Your task to perform on an android device: Find coffee shops on Maps Image 0: 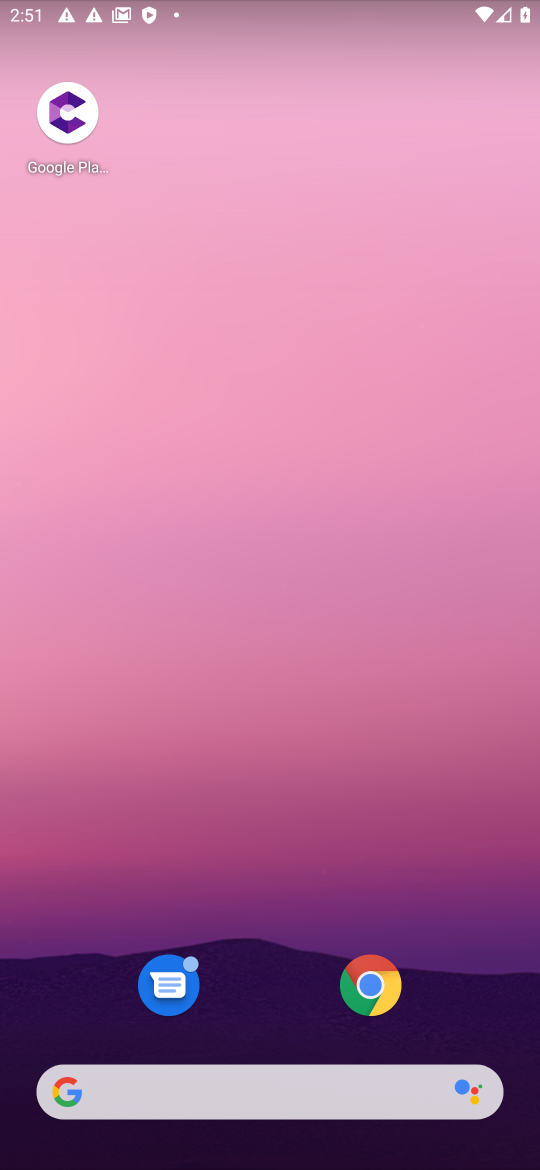
Step 0: drag from (378, 946) to (341, 24)
Your task to perform on an android device: Find coffee shops on Maps Image 1: 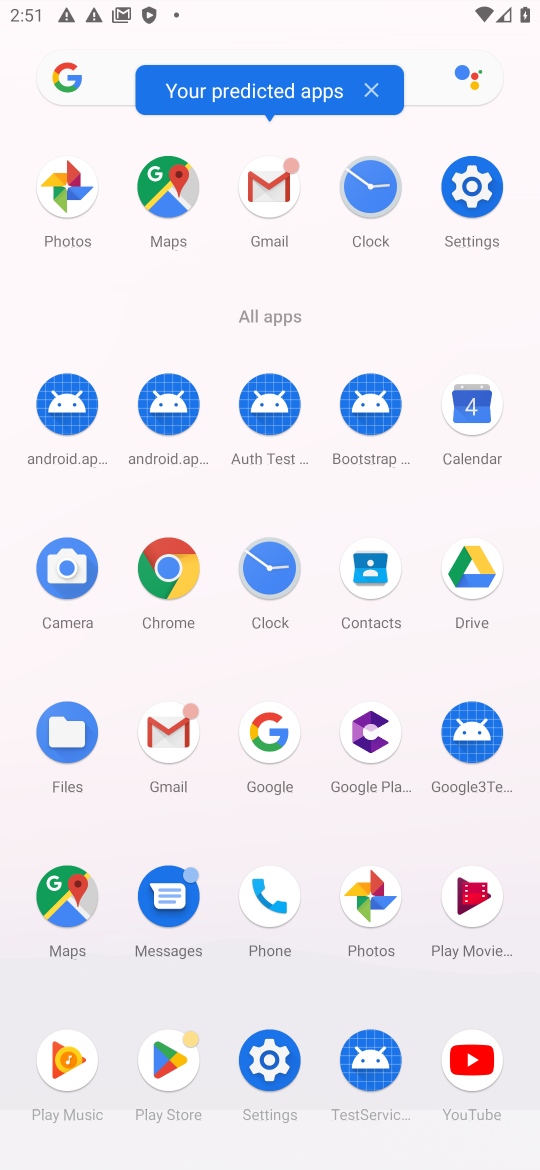
Step 1: click (148, 190)
Your task to perform on an android device: Find coffee shops on Maps Image 2: 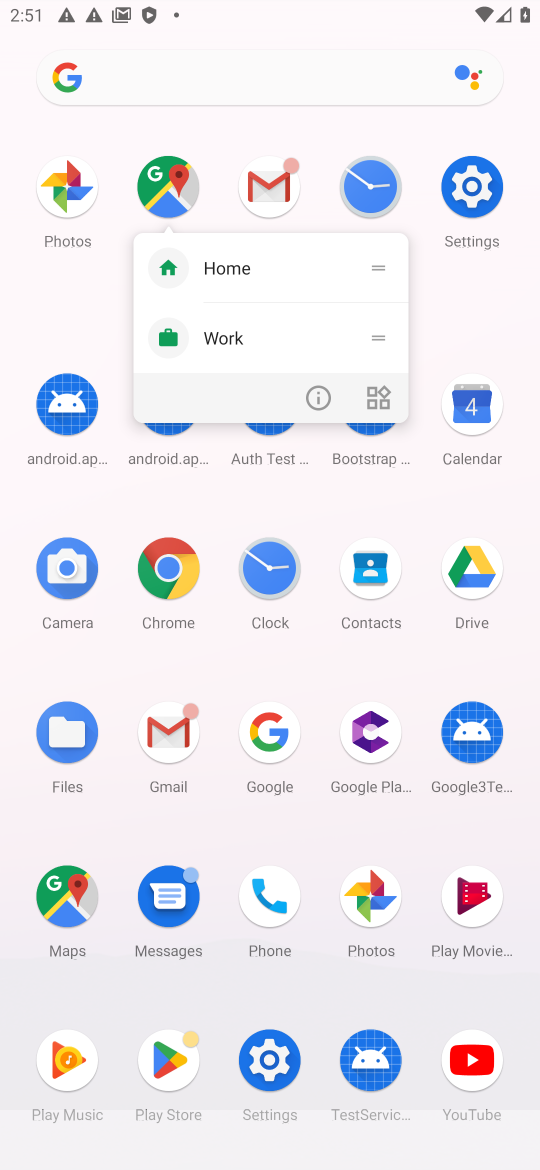
Step 2: click (164, 194)
Your task to perform on an android device: Find coffee shops on Maps Image 3: 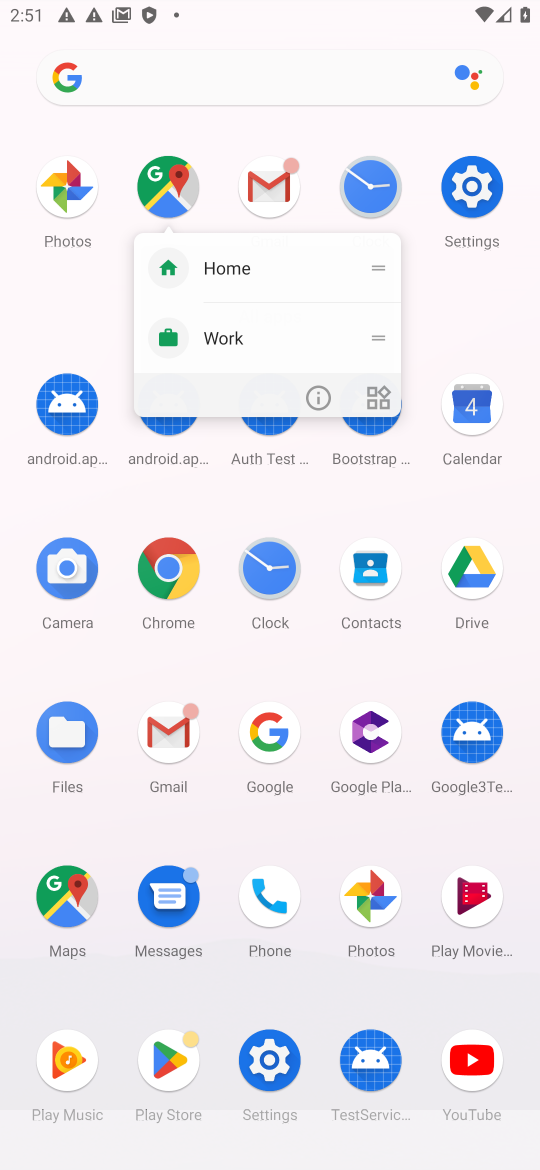
Step 3: click (166, 198)
Your task to perform on an android device: Find coffee shops on Maps Image 4: 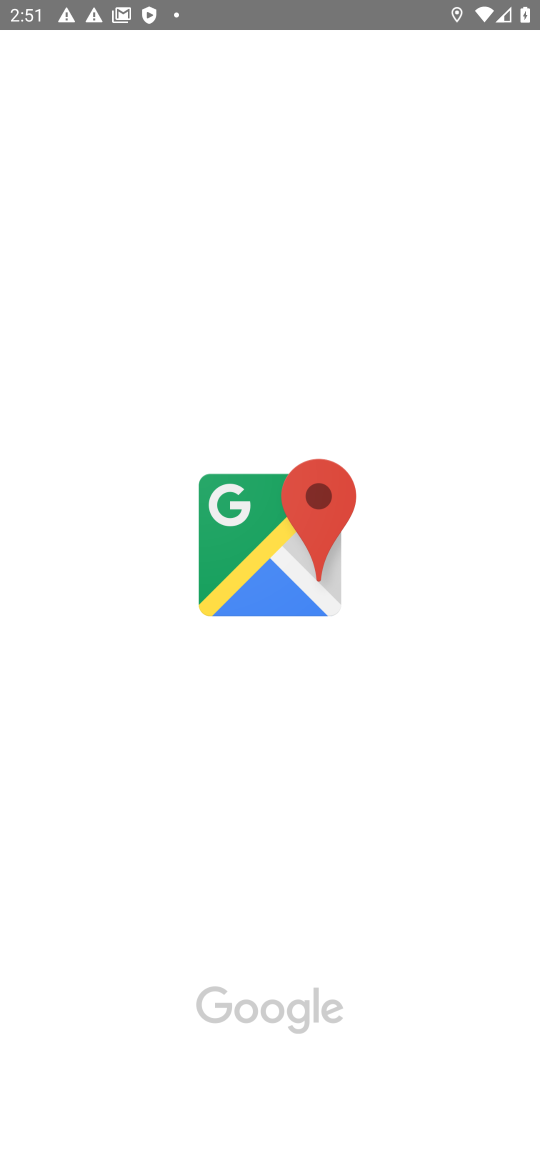
Step 4: click (277, 552)
Your task to perform on an android device: Find coffee shops on Maps Image 5: 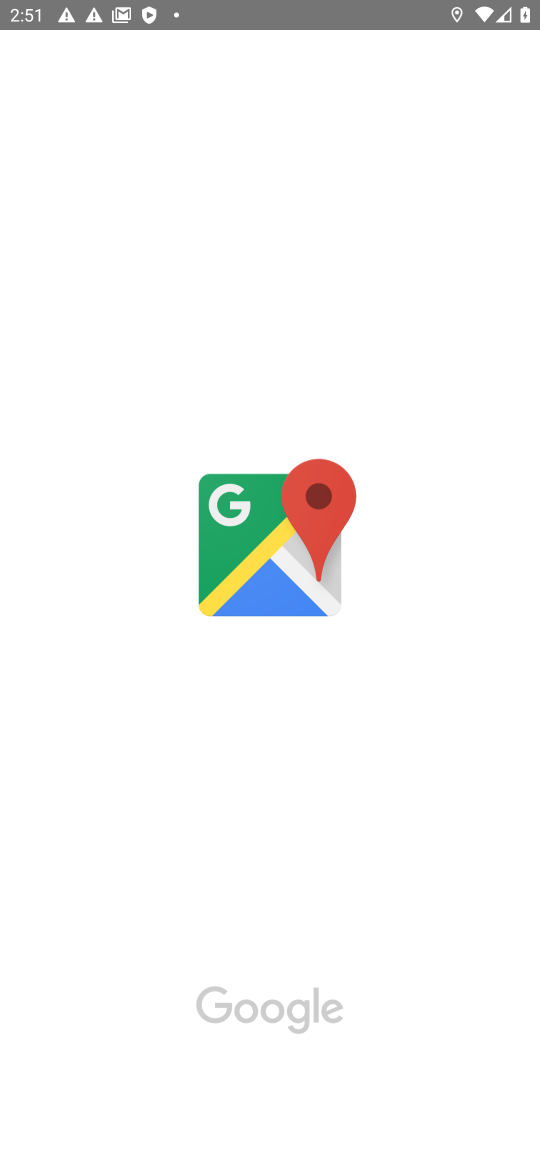
Step 5: click (283, 545)
Your task to perform on an android device: Find coffee shops on Maps Image 6: 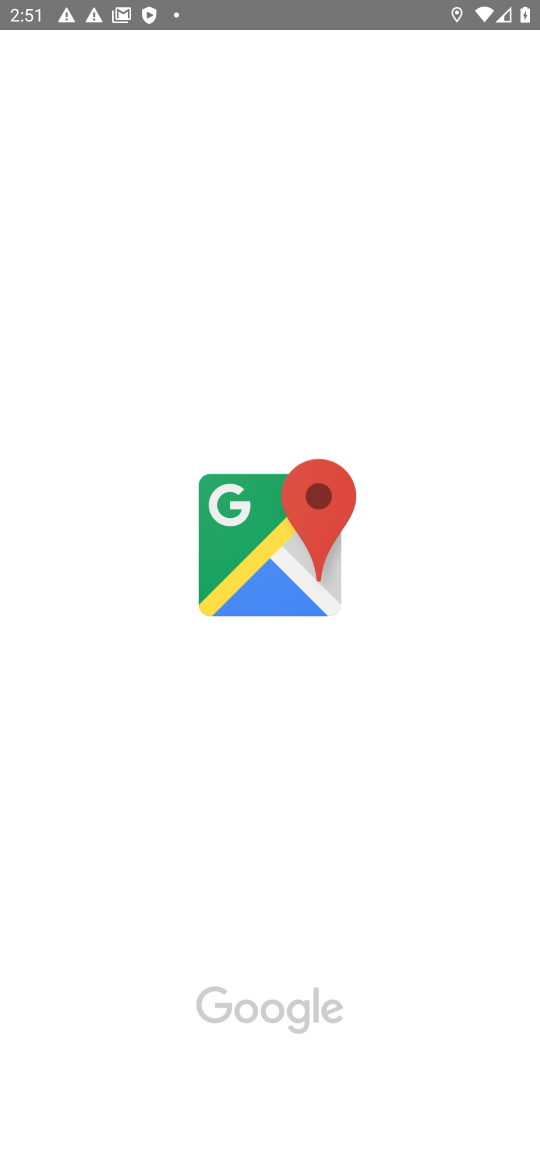
Step 6: click (288, 581)
Your task to perform on an android device: Find coffee shops on Maps Image 7: 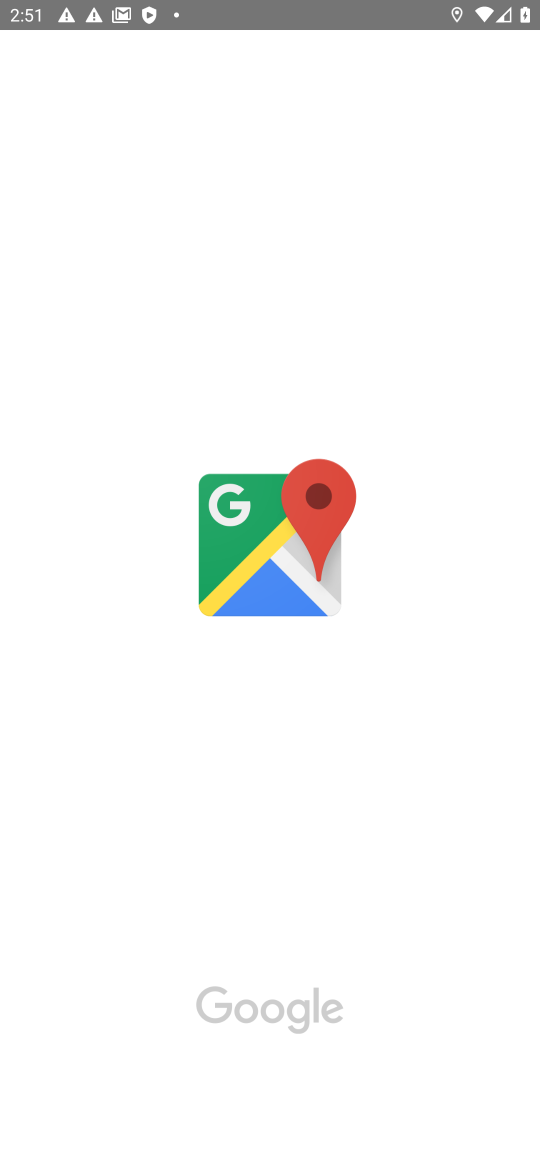
Step 7: click (290, 565)
Your task to perform on an android device: Find coffee shops on Maps Image 8: 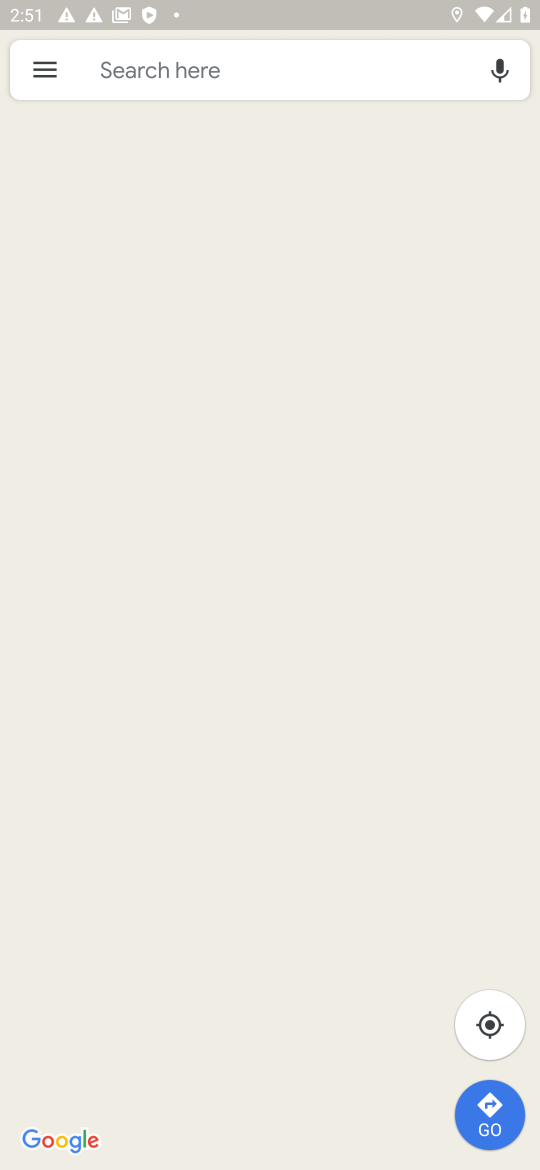
Step 8: click (163, 16)
Your task to perform on an android device: Find coffee shops on Maps Image 9: 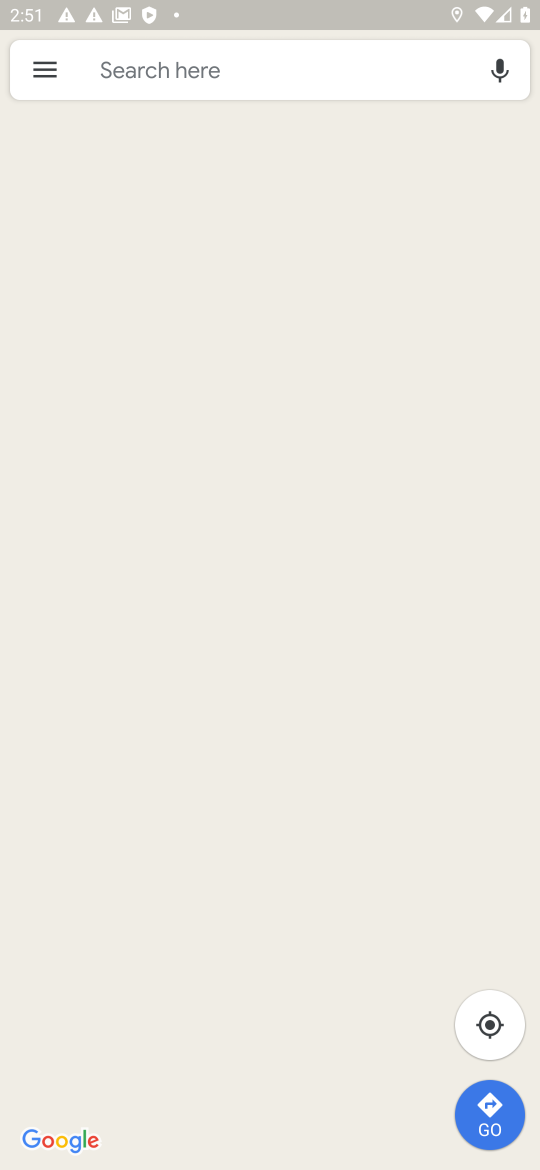
Step 9: click (159, 68)
Your task to perform on an android device: Find coffee shops on Maps Image 10: 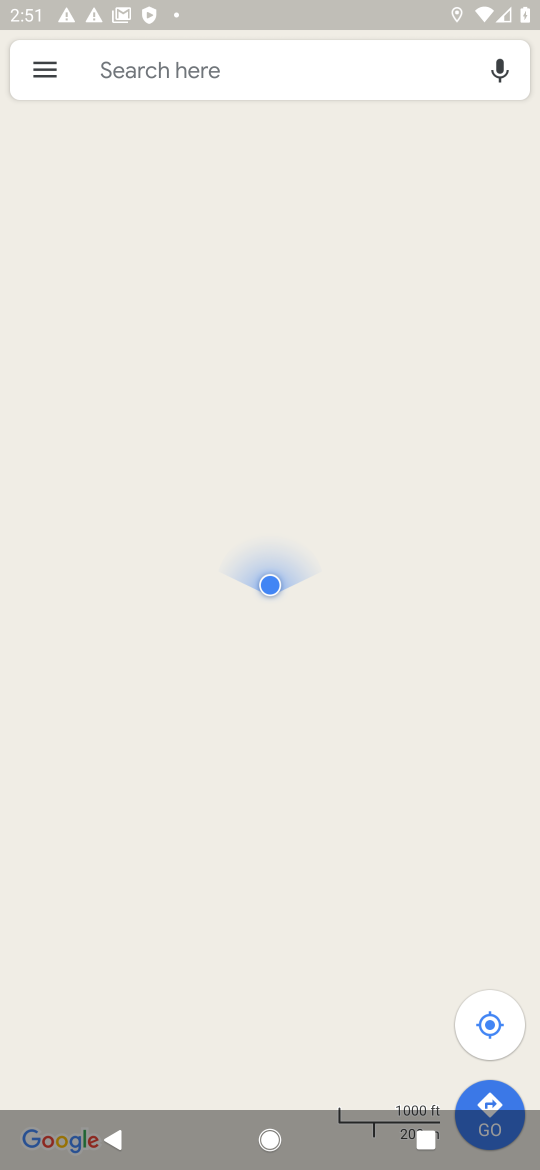
Step 10: click (153, 91)
Your task to perform on an android device: Find coffee shops on Maps Image 11: 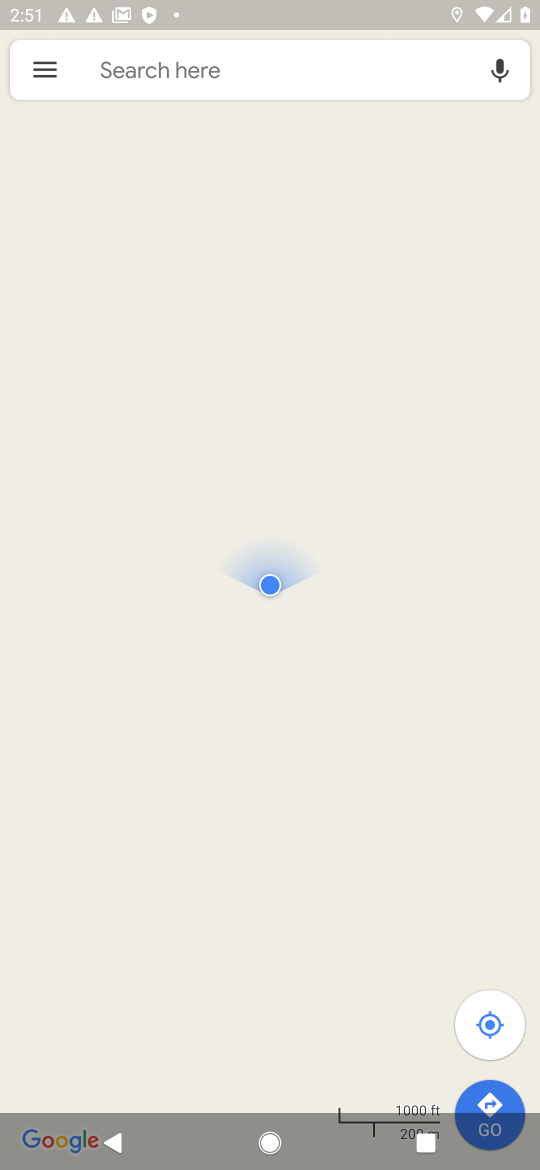
Step 11: click (159, 57)
Your task to perform on an android device: Find coffee shops on Maps Image 12: 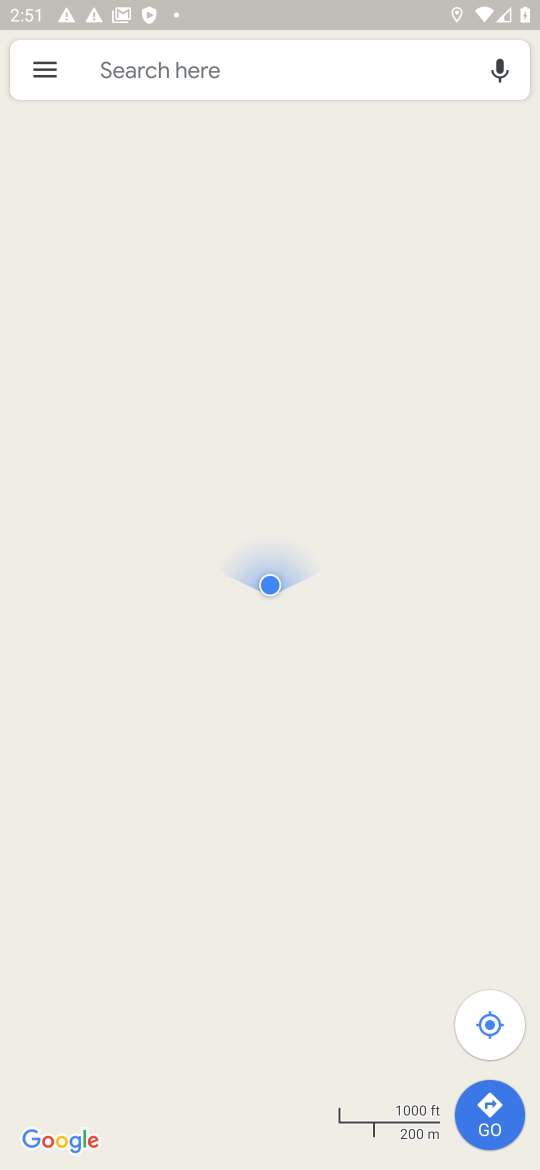
Step 12: click (169, 67)
Your task to perform on an android device: Find coffee shops on Maps Image 13: 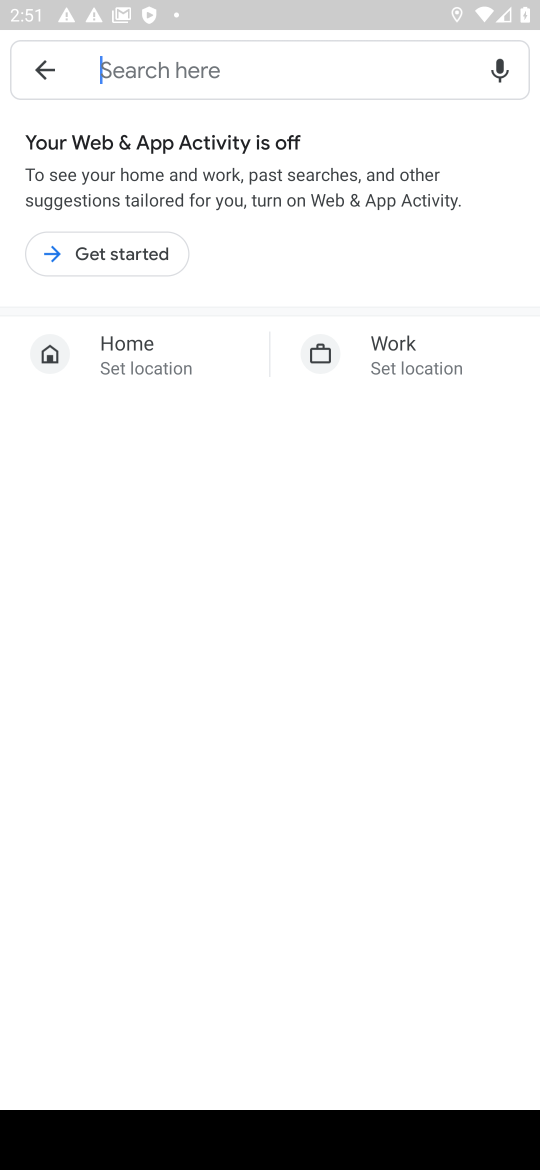
Step 13: type "coffee"
Your task to perform on an android device: Find coffee shops on Maps Image 14: 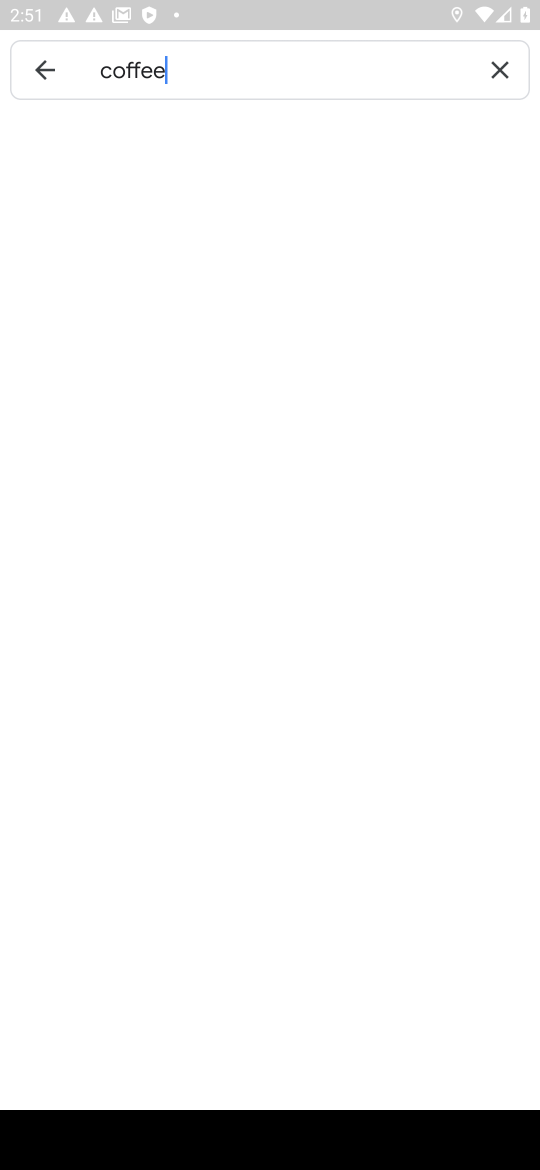
Step 14: click (188, 83)
Your task to perform on an android device: Find coffee shops on Maps Image 15: 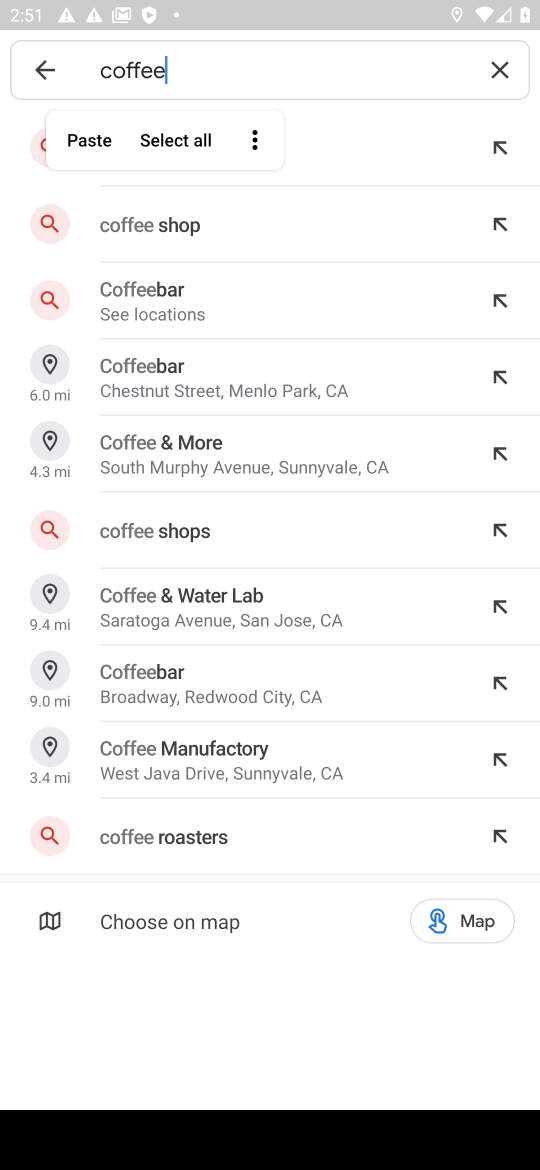
Step 15: click (31, 76)
Your task to perform on an android device: Find coffee shops on Maps Image 16: 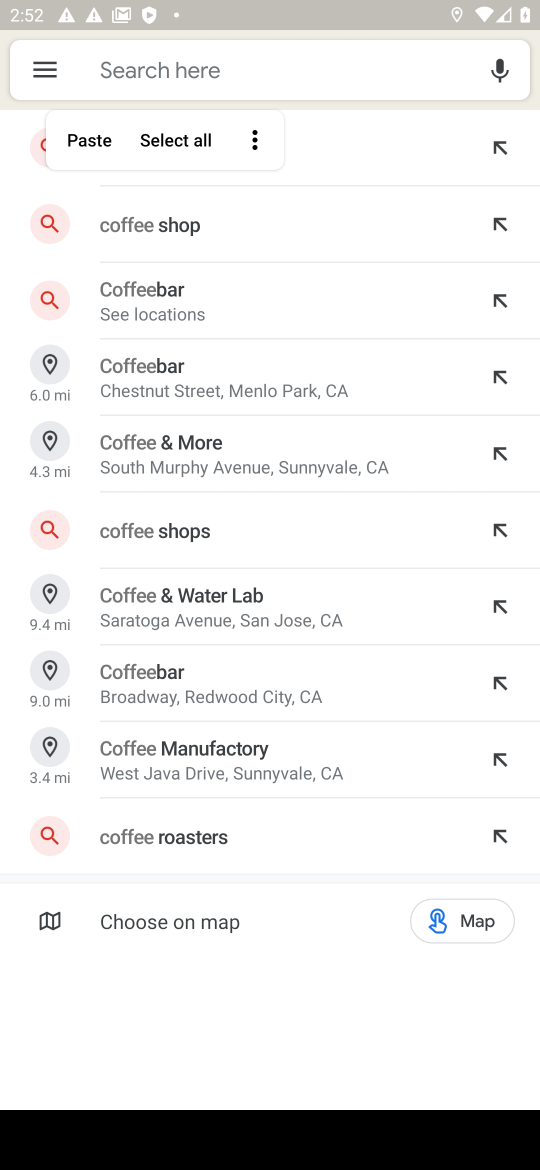
Step 16: press back button
Your task to perform on an android device: Find coffee shops on Maps Image 17: 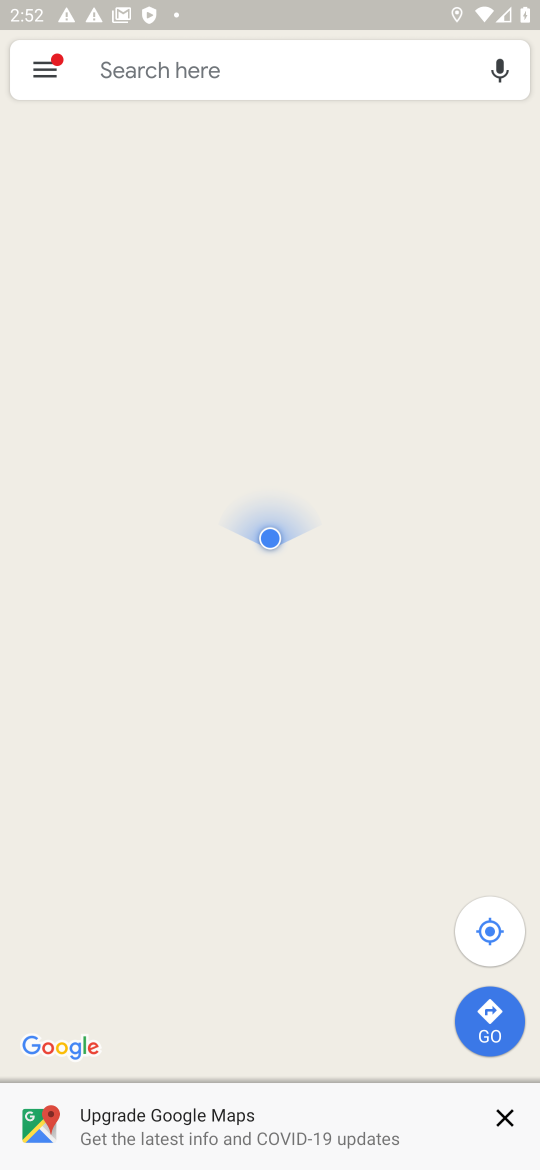
Step 17: click (365, 938)
Your task to perform on an android device: Find coffee shops on Maps Image 18: 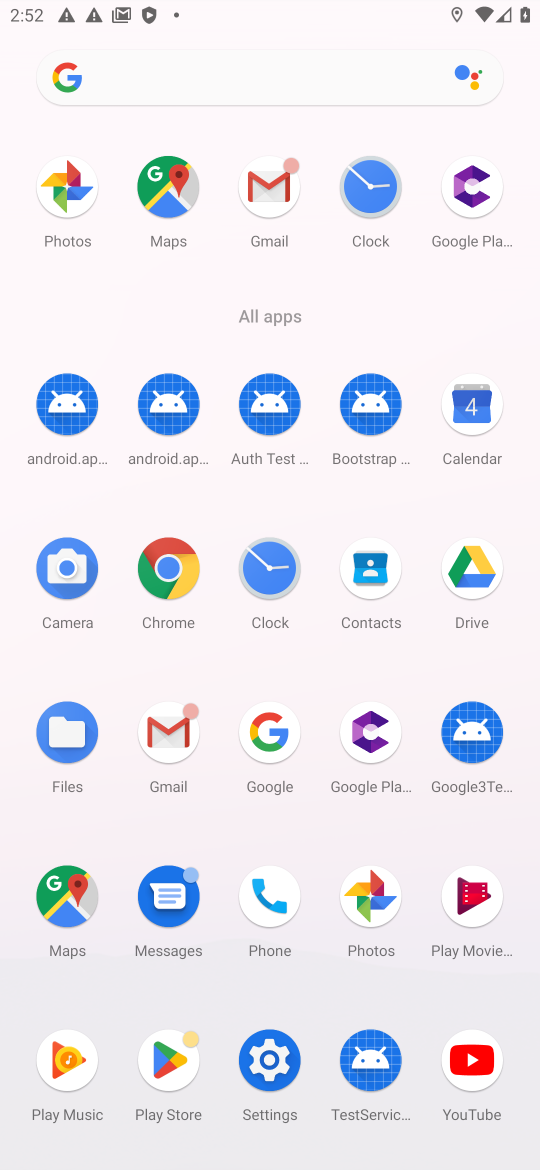
Step 18: click (109, 91)
Your task to perform on an android device: Find coffee shops on Maps Image 19: 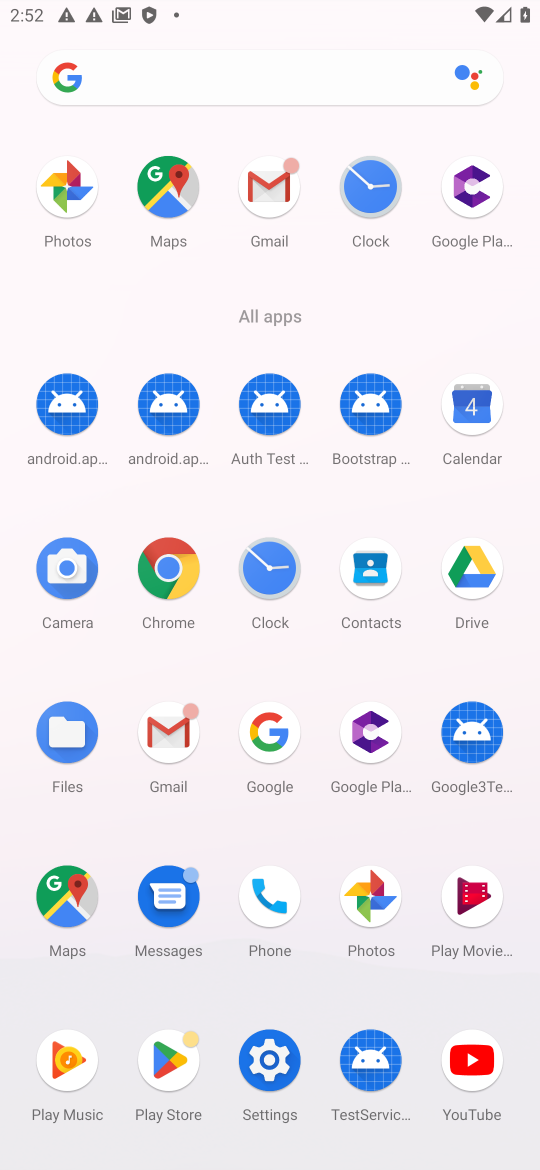
Step 19: click (163, 191)
Your task to perform on an android device: Find coffee shops on Maps Image 20: 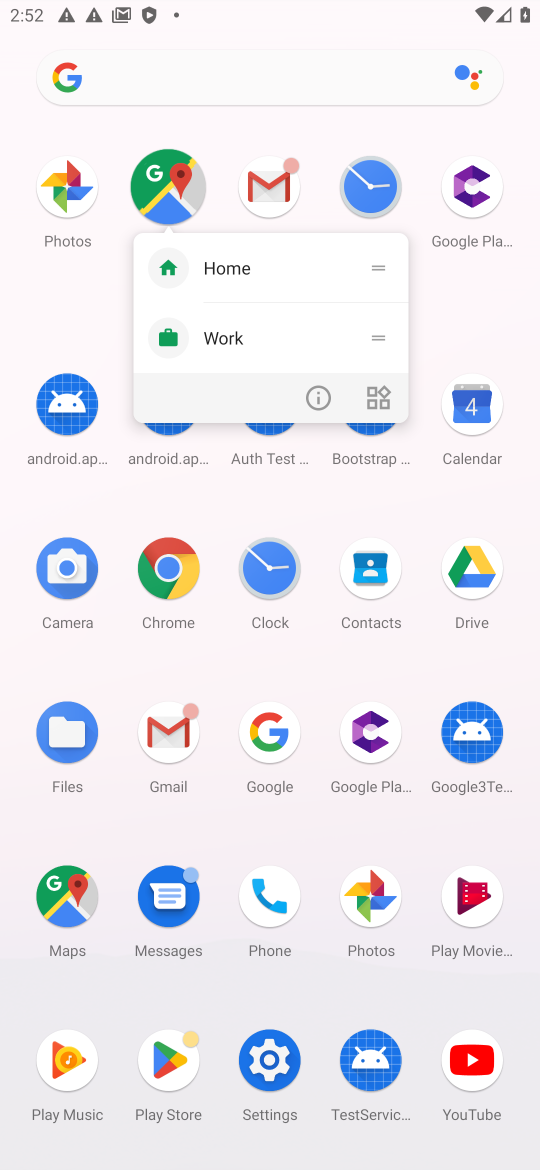
Step 20: click (166, 189)
Your task to perform on an android device: Find coffee shops on Maps Image 21: 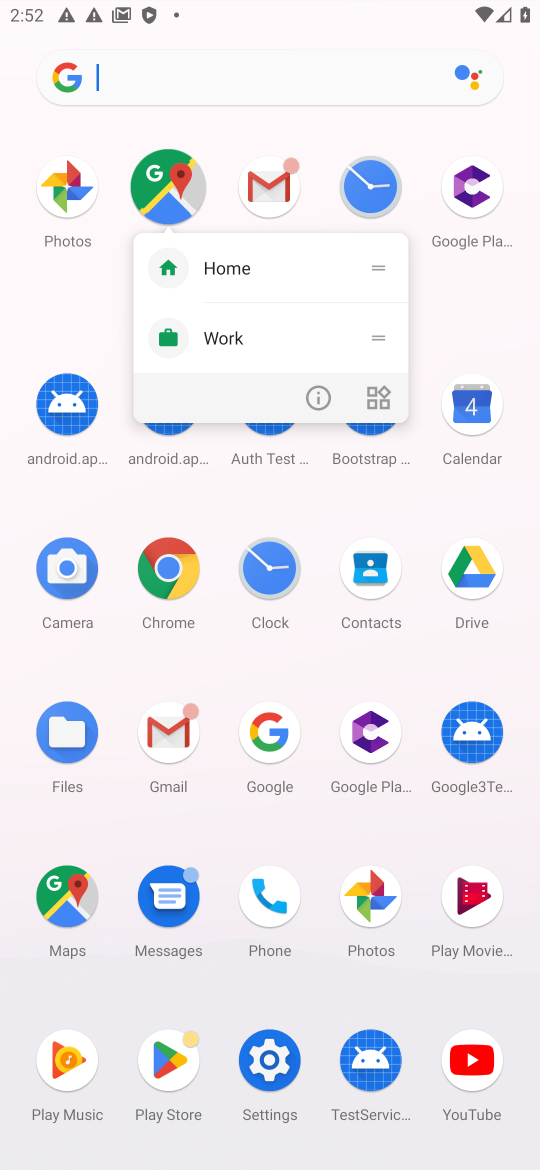
Step 21: click (166, 189)
Your task to perform on an android device: Find coffee shops on Maps Image 22: 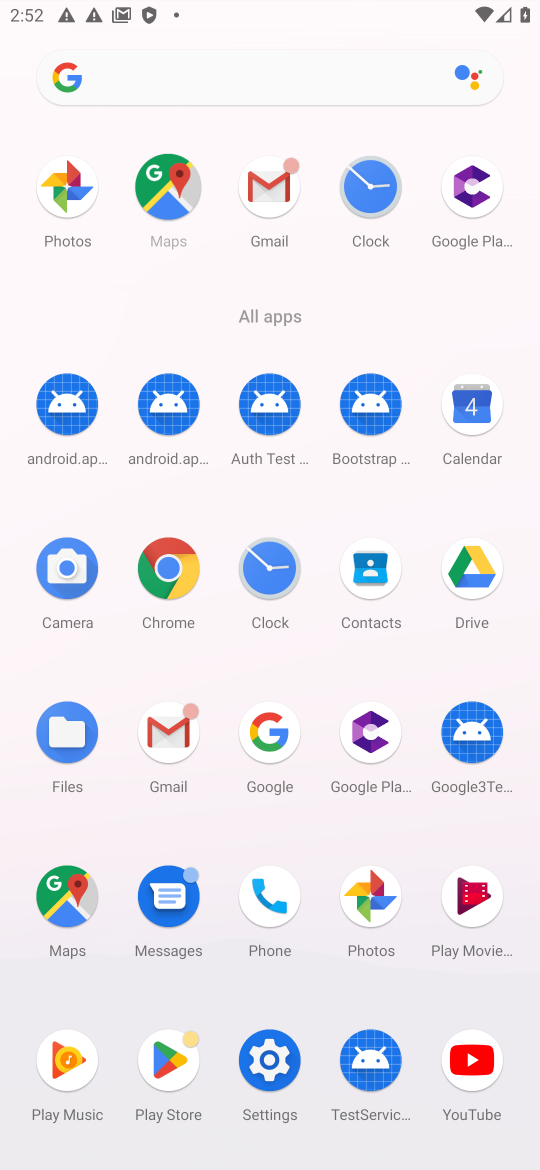
Step 22: click (168, 189)
Your task to perform on an android device: Find coffee shops on Maps Image 23: 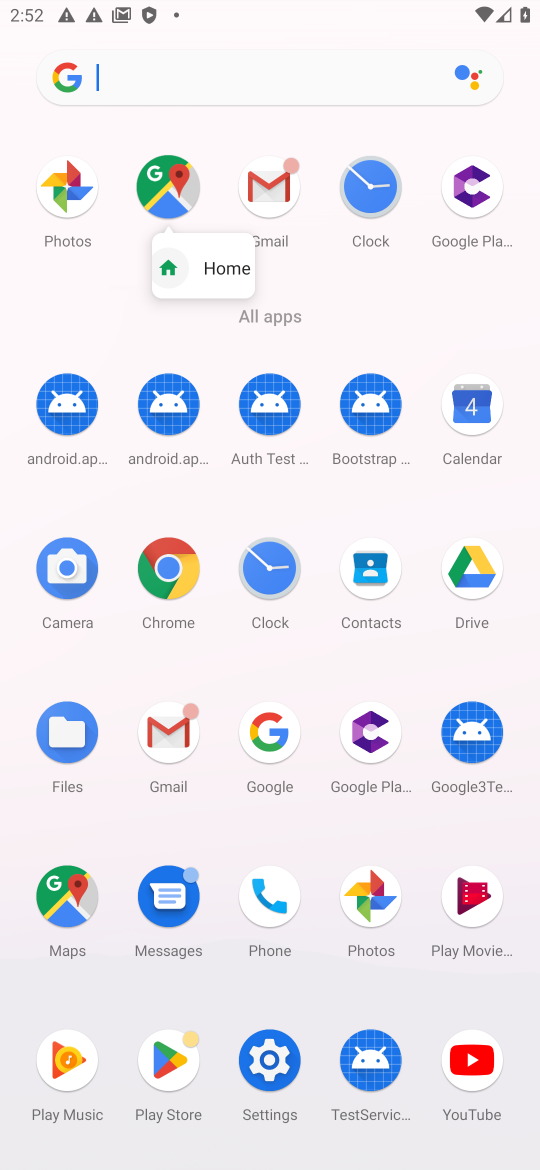
Step 23: click (232, 332)
Your task to perform on an android device: Find coffee shops on Maps Image 24: 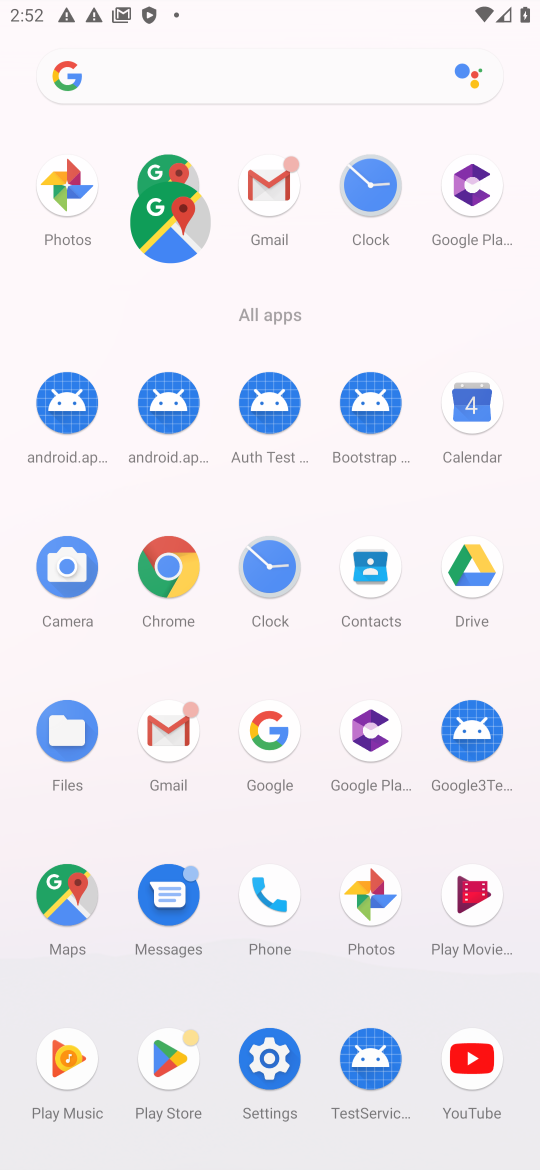
Step 24: click (159, 163)
Your task to perform on an android device: Find coffee shops on Maps Image 25: 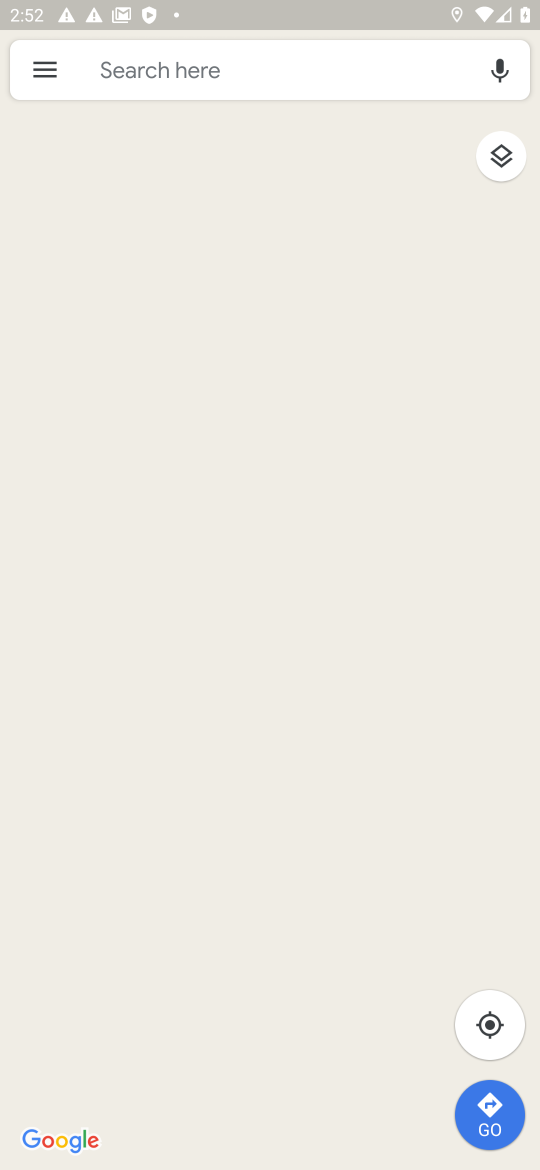
Step 25: click (113, 59)
Your task to perform on an android device: Find coffee shops on Maps Image 26: 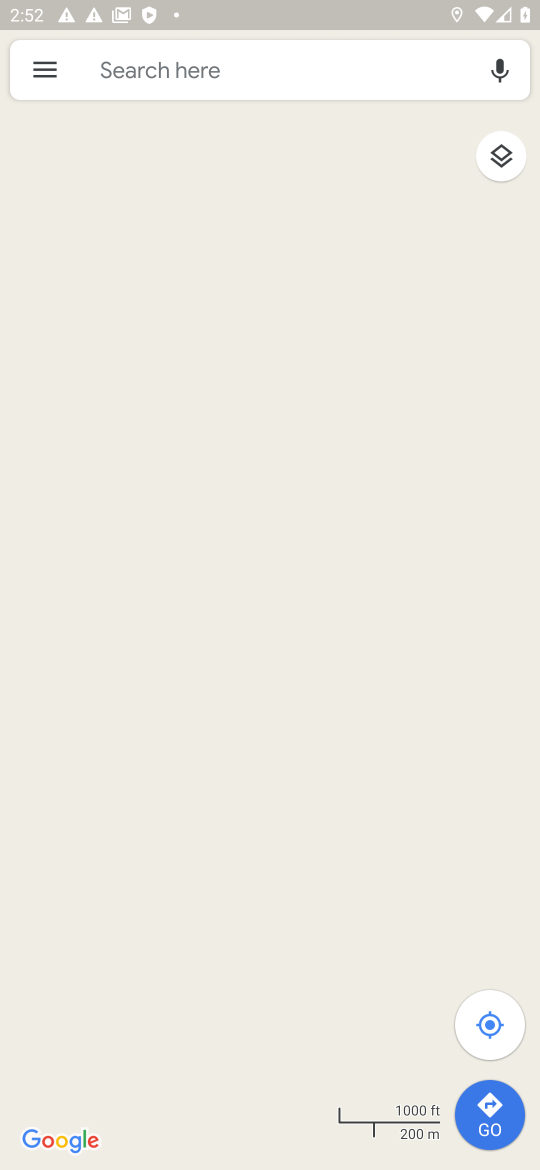
Step 26: click (119, 52)
Your task to perform on an android device: Find coffee shops on Maps Image 27: 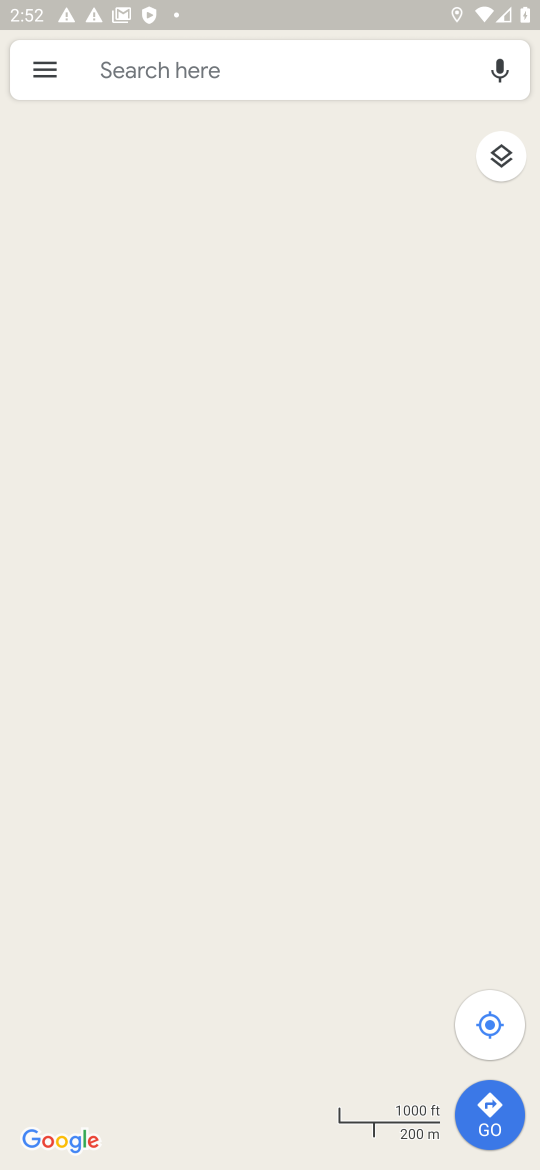
Step 27: click (119, 52)
Your task to perform on an android device: Find coffee shops on Maps Image 28: 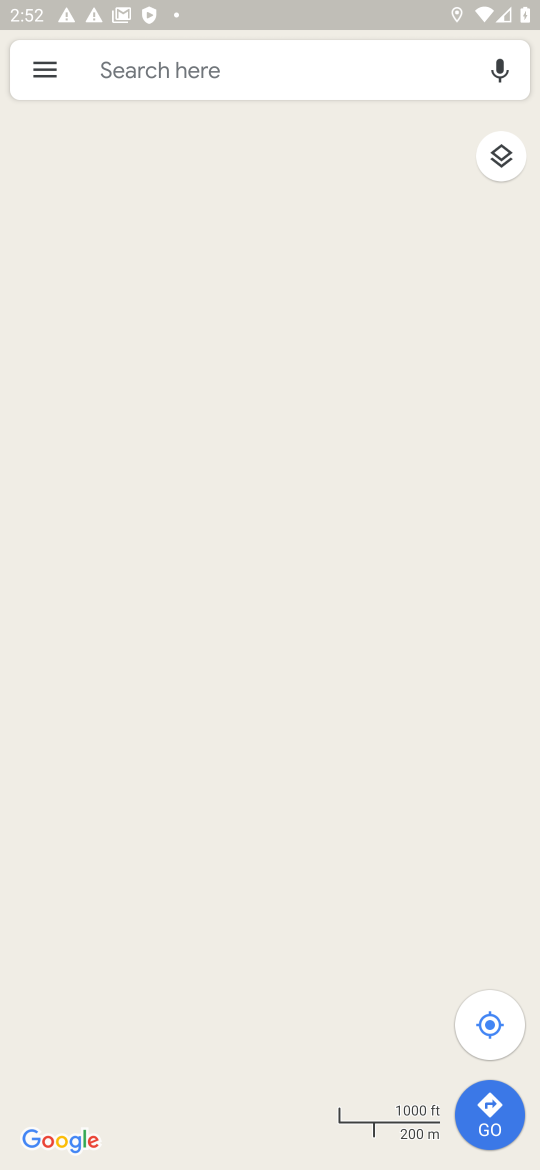
Step 28: click (119, 52)
Your task to perform on an android device: Find coffee shops on Maps Image 29: 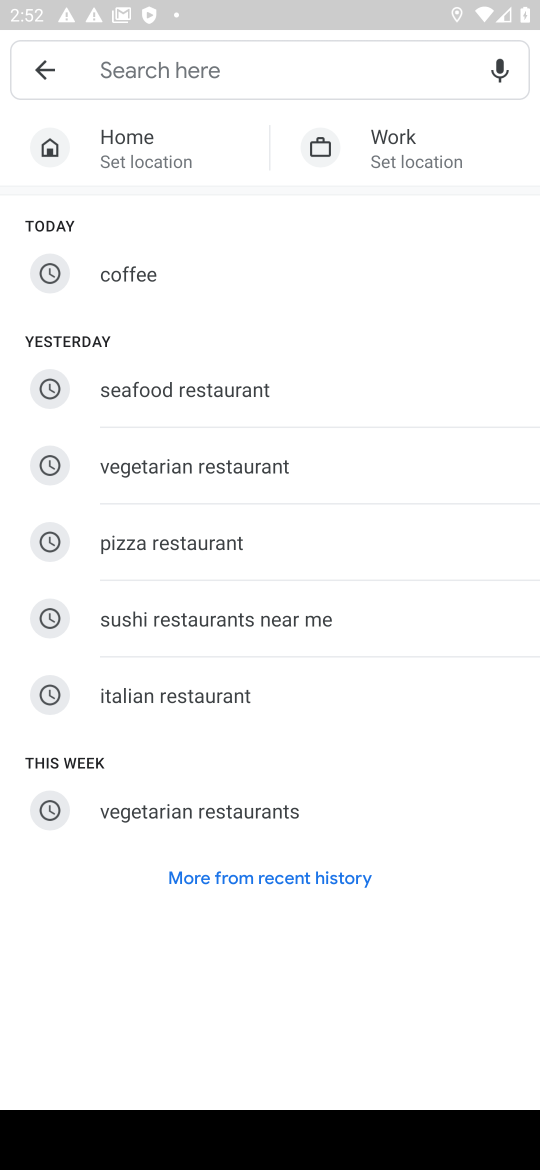
Step 29: click (149, 251)
Your task to perform on an android device: Find coffee shops on Maps Image 30: 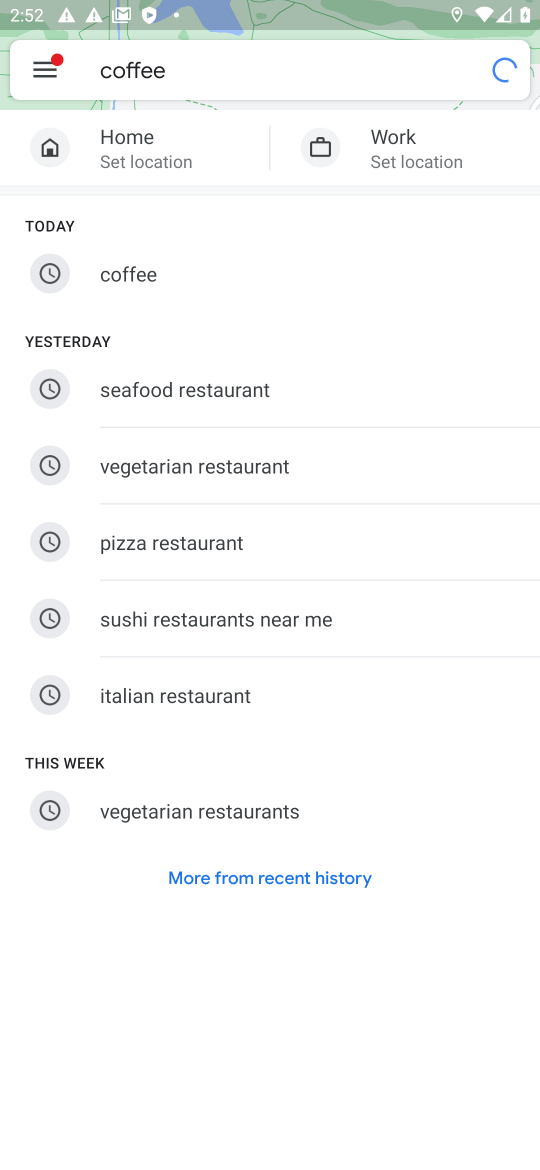
Step 30: click (136, 266)
Your task to perform on an android device: Find coffee shops on Maps Image 31: 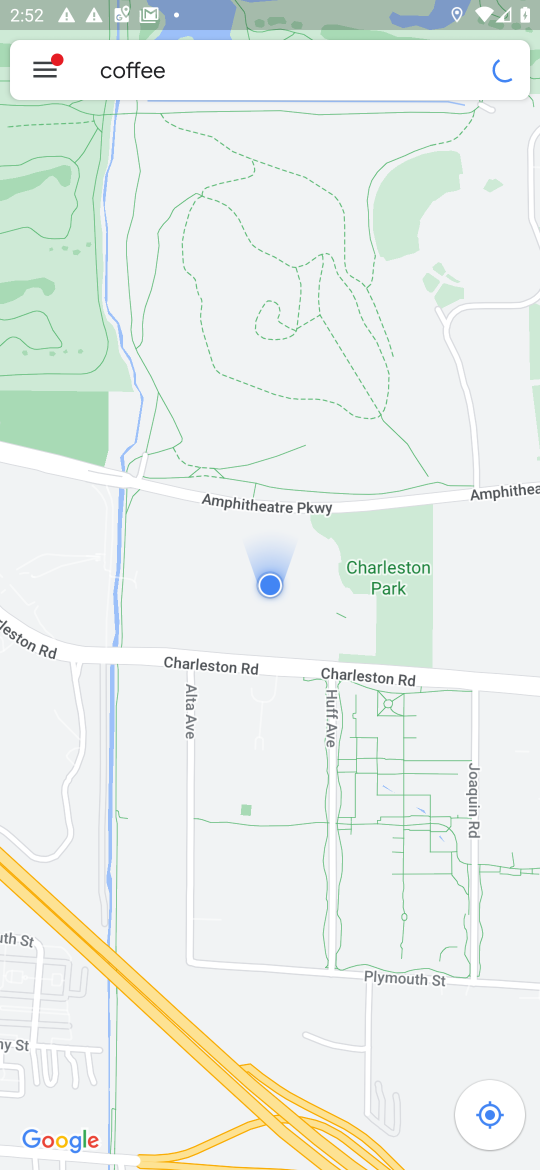
Step 31: click (137, 267)
Your task to perform on an android device: Find coffee shops on Maps Image 32: 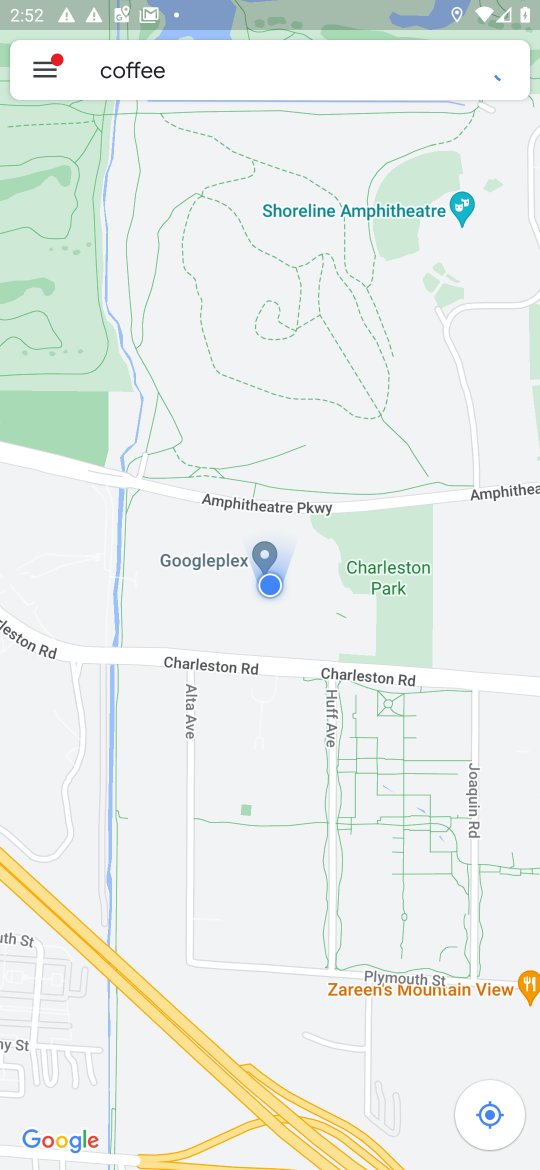
Step 32: task complete